Your task to perform on an android device: toggle airplane mode Image 0: 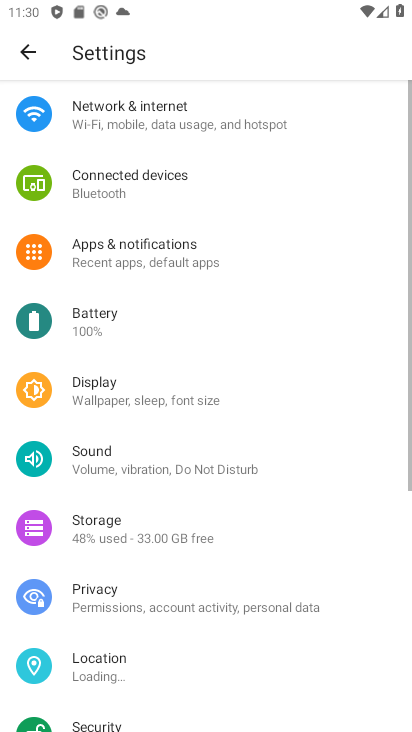
Step 0: drag from (377, 627) to (320, 199)
Your task to perform on an android device: toggle airplane mode Image 1: 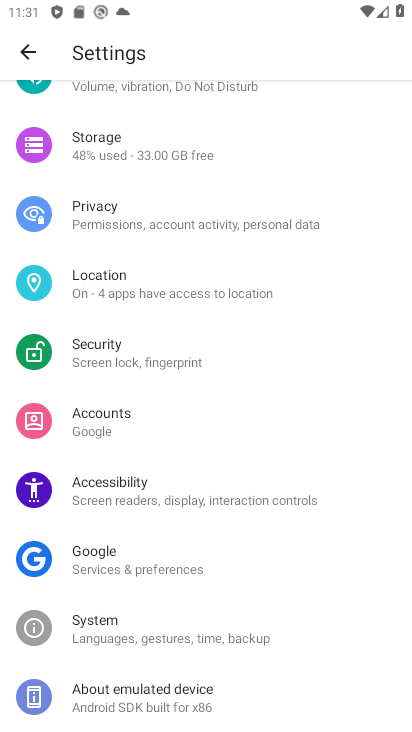
Step 1: press home button
Your task to perform on an android device: toggle airplane mode Image 2: 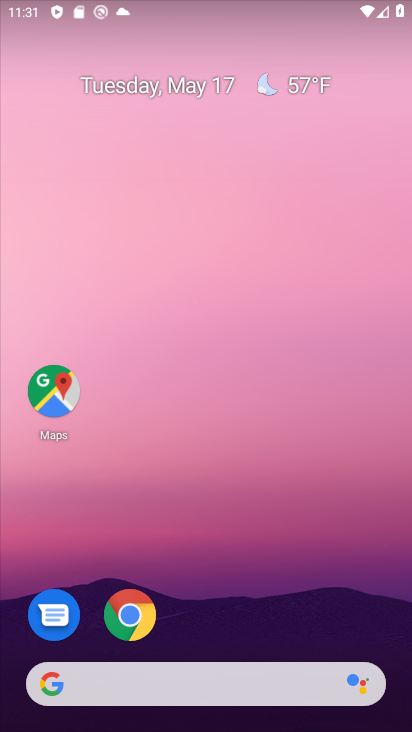
Step 2: drag from (255, 17) to (282, 580)
Your task to perform on an android device: toggle airplane mode Image 3: 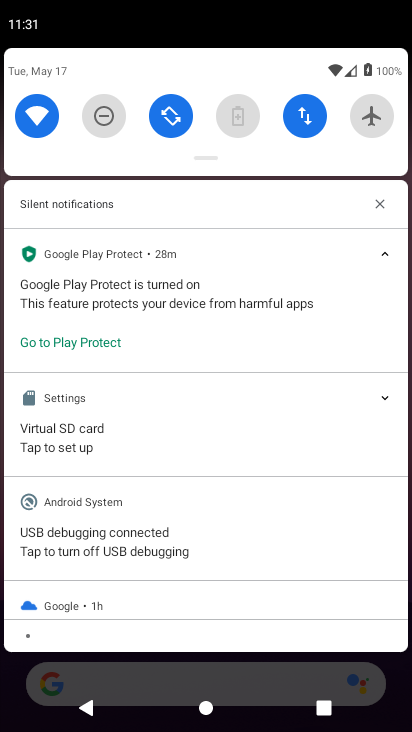
Step 3: click (385, 110)
Your task to perform on an android device: toggle airplane mode Image 4: 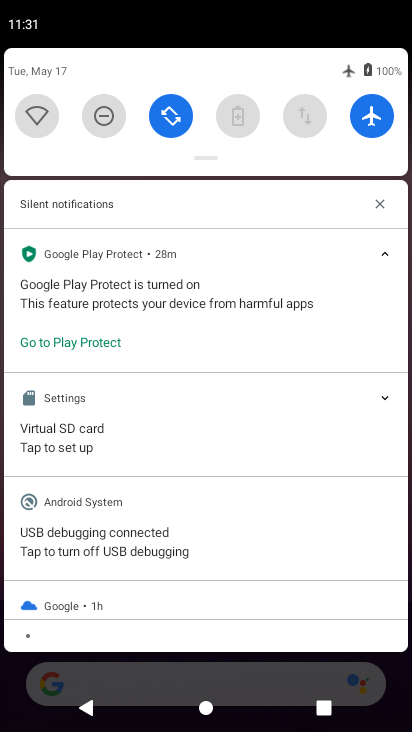
Step 4: task complete